Your task to perform on an android device: stop showing notifications on the lock screen Image 0: 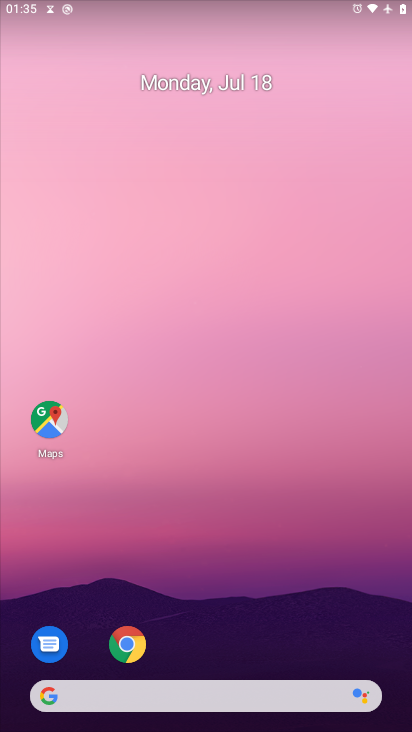
Step 0: press home button
Your task to perform on an android device: stop showing notifications on the lock screen Image 1: 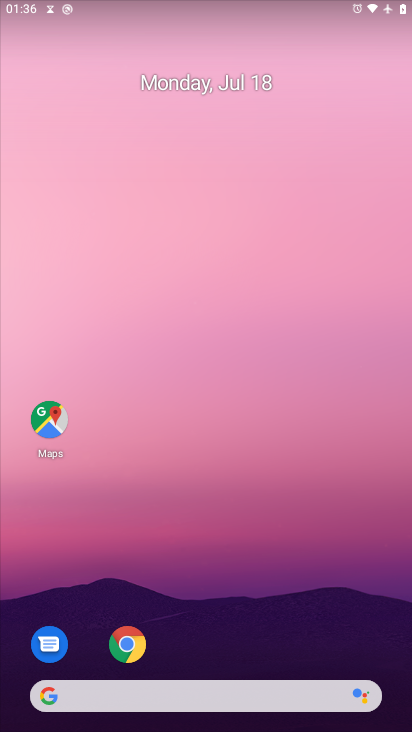
Step 1: drag from (213, 648) to (214, 33)
Your task to perform on an android device: stop showing notifications on the lock screen Image 2: 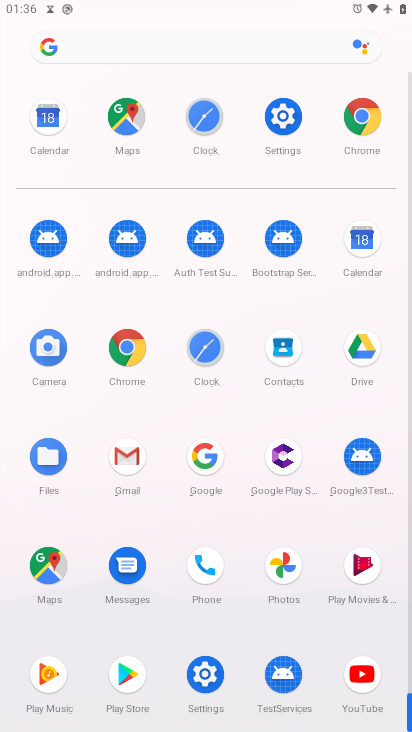
Step 2: click (276, 133)
Your task to perform on an android device: stop showing notifications on the lock screen Image 3: 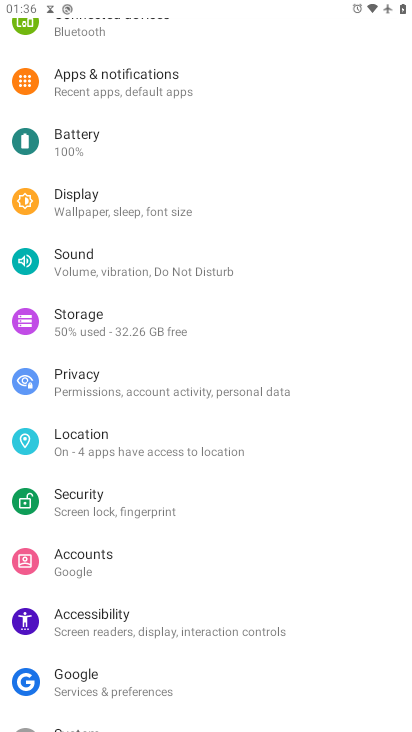
Step 3: click (86, 85)
Your task to perform on an android device: stop showing notifications on the lock screen Image 4: 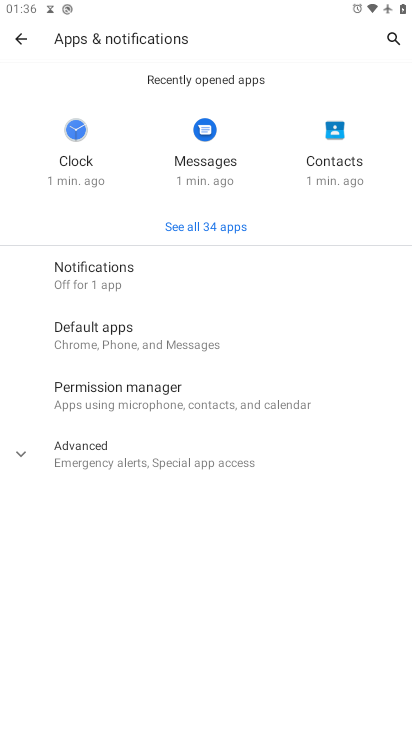
Step 4: click (102, 275)
Your task to perform on an android device: stop showing notifications on the lock screen Image 5: 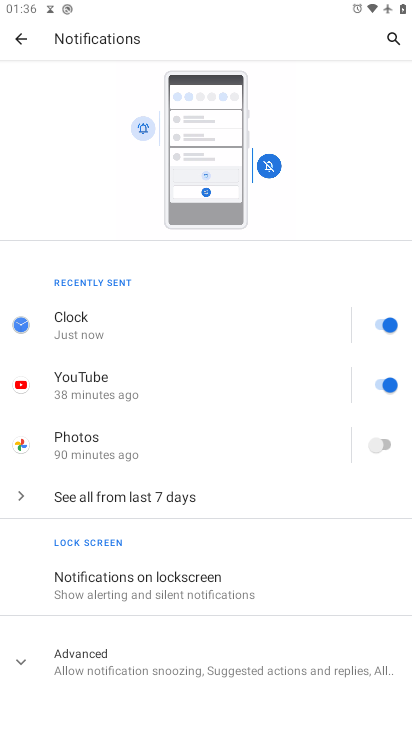
Step 5: click (134, 588)
Your task to perform on an android device: stop showing notifications on the lock screen Image 6: 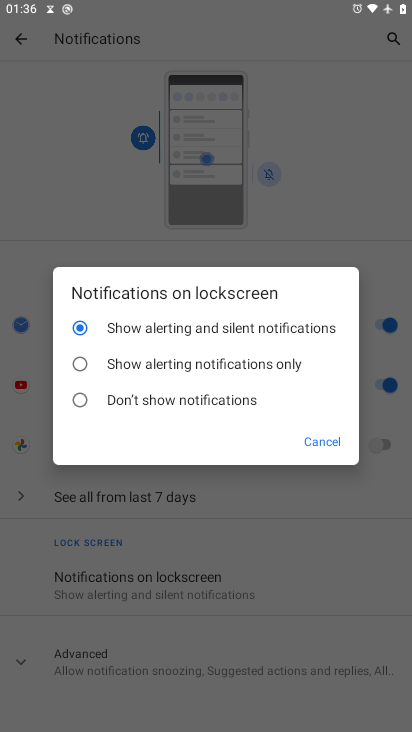
Step 6: click (79, 403)
Your task to perform on an android device: stop showing notifications on the lock screen Image 7: 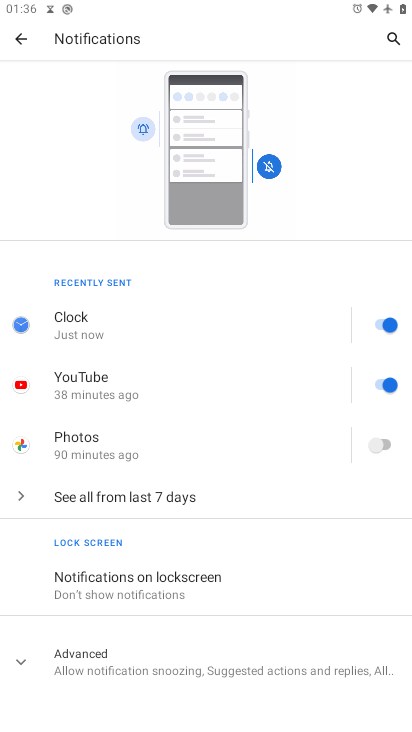
Step 7: task complete